Your task to perform on an android device: stop showing notifications on the lock screen Image 0: 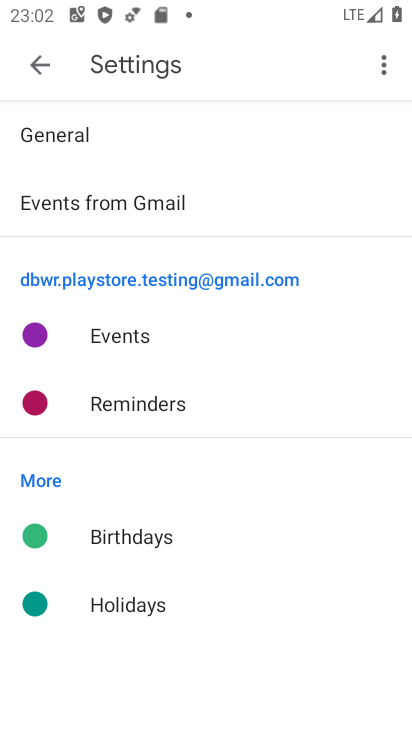
Step 0: press home button
Your task to perform on an android device: stop showing notifications on the lock screen Image 1: 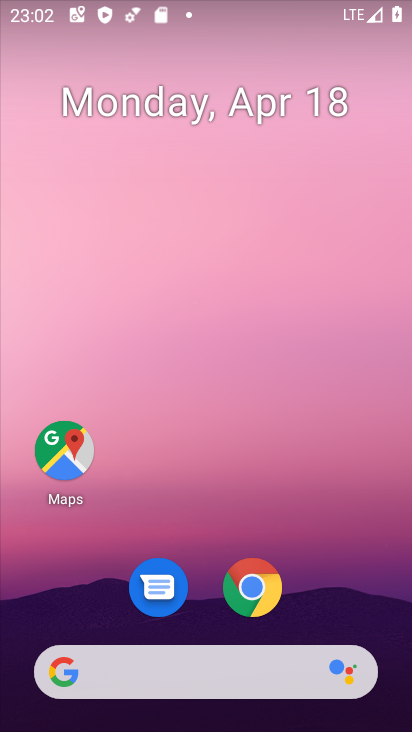
Step 1: drag from (361, 602) to (306, 86)
Your task to perform on an android device: stop showing notifications on the lock screen Image 2: 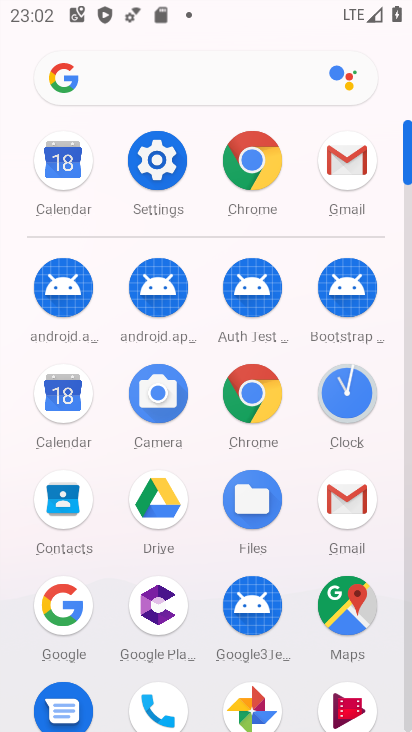
Step 2: click (153, 154)
Your task to perform on an android device: stop showing notifications on the lock screen Image 3: 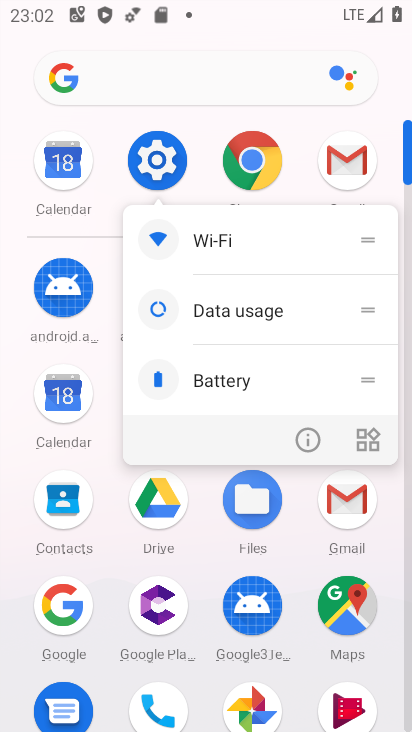
Step 3: click (151, 156)
Your task to perform on an android device: stop showing notifications on the lock screen Image 4: 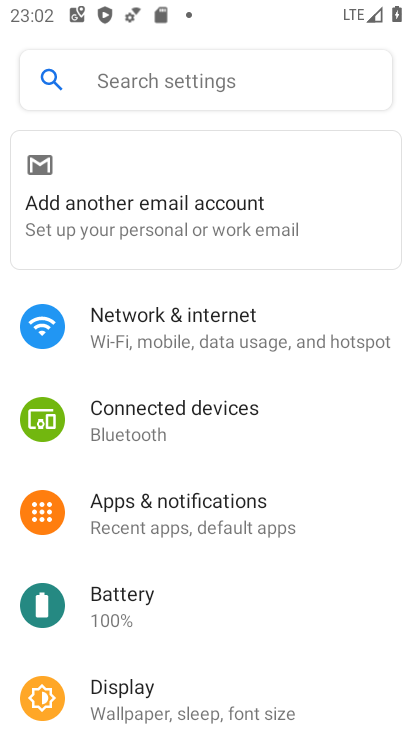
Step 4: drag from (296, 617) to (370, 187)
Your task to perform on an android device: stop showing notifications on the lock screen Image 5: 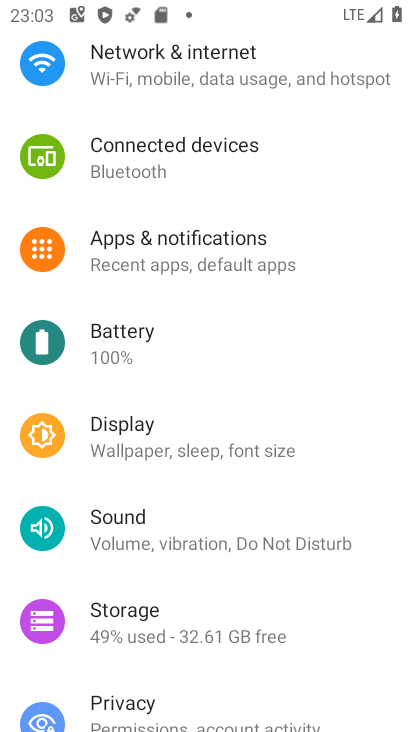
Step 5: click (181, 237)
Your task to perform on an android device: stop showing notifications on the lock screen Image 6: 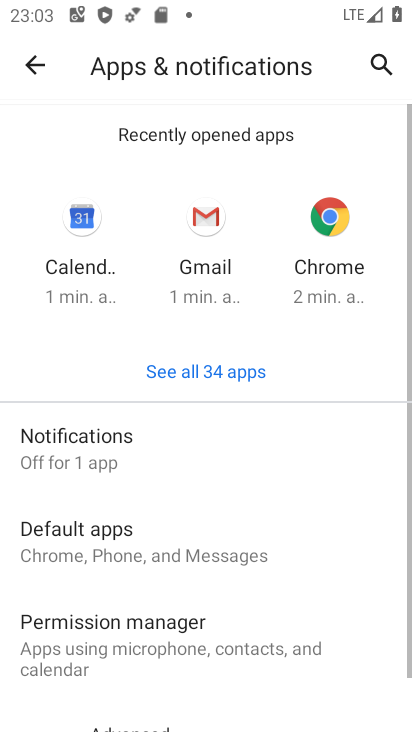
Step 6: click (106, 448)
Your task to perform on an android device: stop showing notifications on the lock screen Image 7: 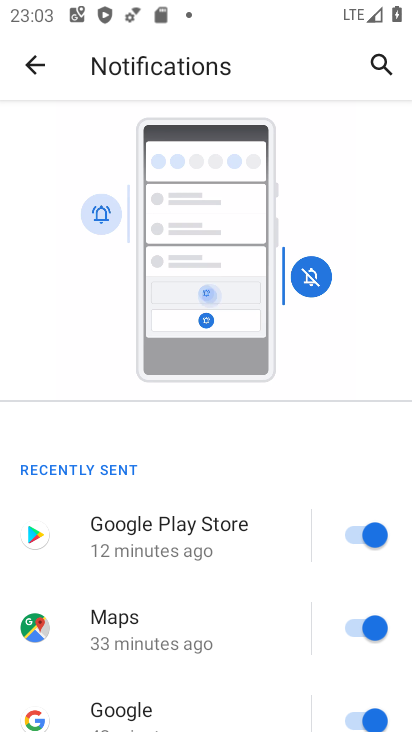
Step 7: drag from (272, 684) to (376, 120)
Your task to perform on an android device: stop showing notifications on the lock screen Image 8: 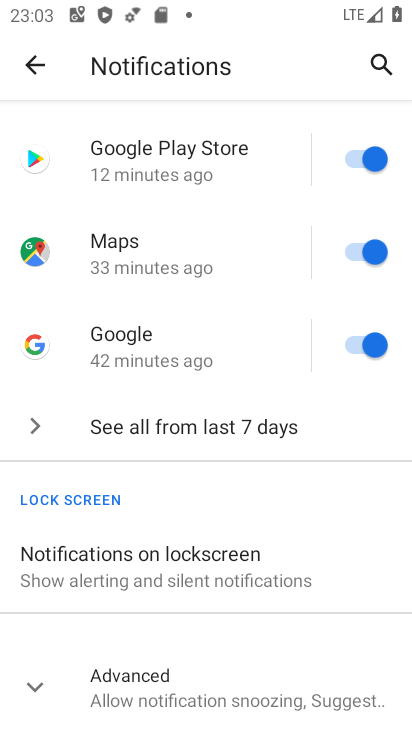
Step 8: click (177, 672)
Your task to perform on an android device: stop showing notifications on the lock screen Image 9: 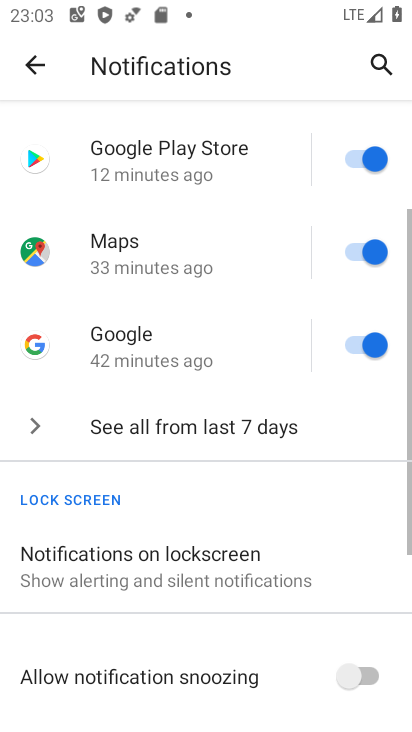
Step 9: drag from (166, 695) to (291, 354)
Your task to perform on an android device: stop showing notifications on the lock screen Image 10: 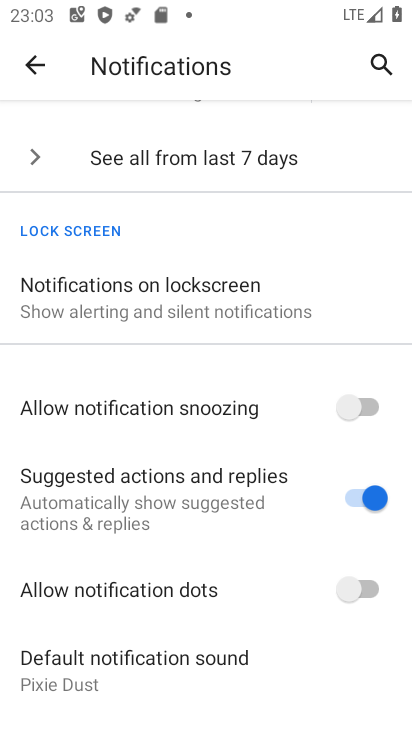
Step 10: click (183, 305)
Your task to perform on an android device: stop showing notifications on the lock screen Image 11: 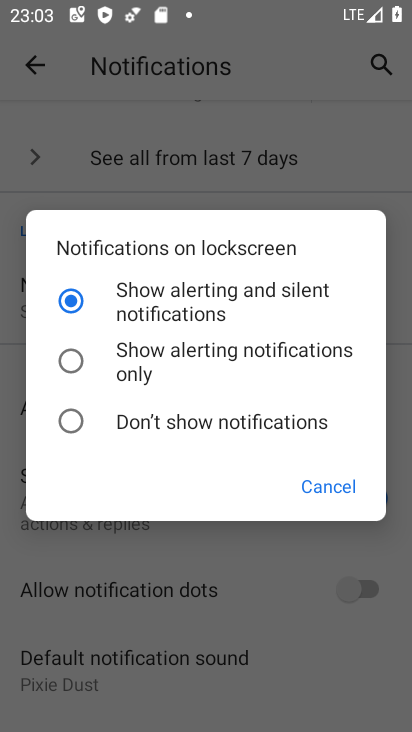
Step 11: click (168, 417)
Your task to perform on an android device: stop showing notifications on the lock screen Image 12: 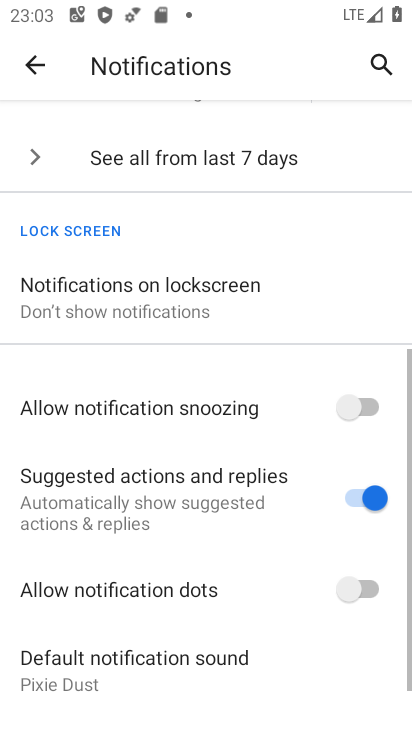
Step 12: task complete